Your task to perform on an android device: delete browsing data in the chrome app Image 0: 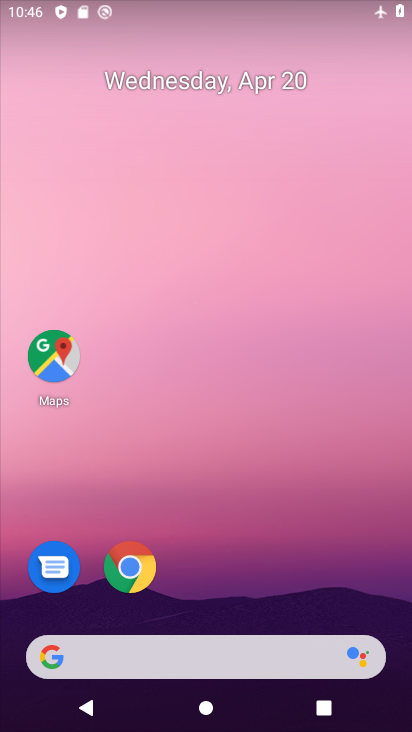
Step 0: click (275, 170)
Your task to perform on an android device: delete browsing data in the chrome app Image 1: 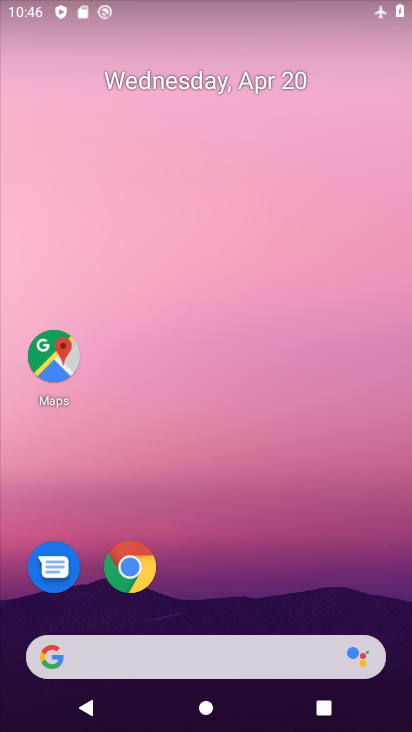
Step 1: drag from (209, 452) to (223, 116)
Your task to perform on an android device: delete browsing data in the chrome app Image 2: 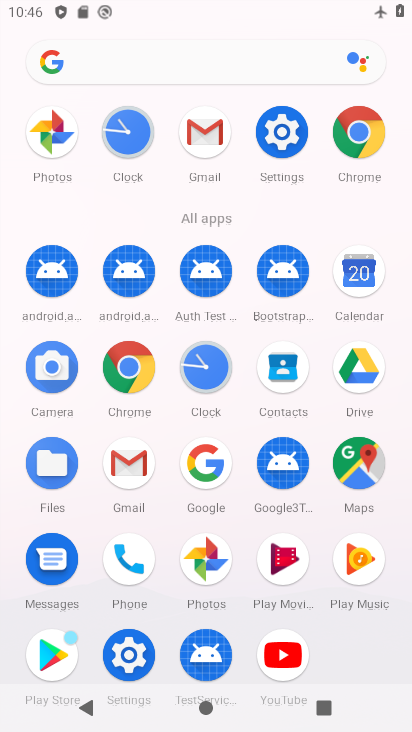
Step 2: click (349, 134)
Your task to perform on an android device: delete browsing data in the chrome app Image 3: 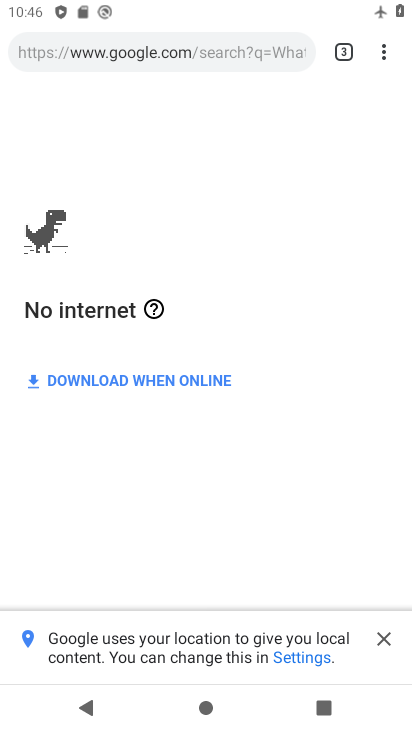
Step 3: click (391, 46)
Your task to perform on an android device: delete browsing data in the chrome app Image 4: 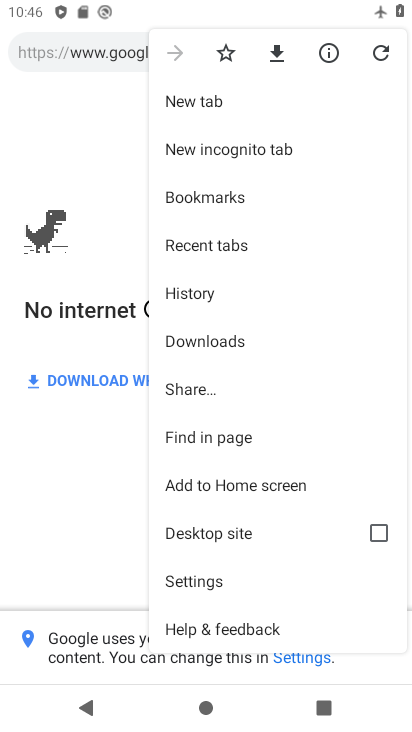
Step 4: click (212, 574)
Your task to perform on an android device: delete browsing data in the chrome app Image 5: 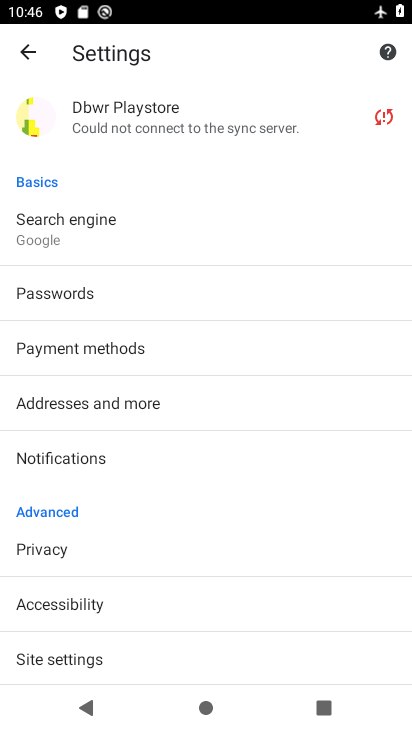
Step 5: drag from (154, 627) to (322, 146)
Your task to perform on an android device: delete browsing data in the chrome app Image 6: 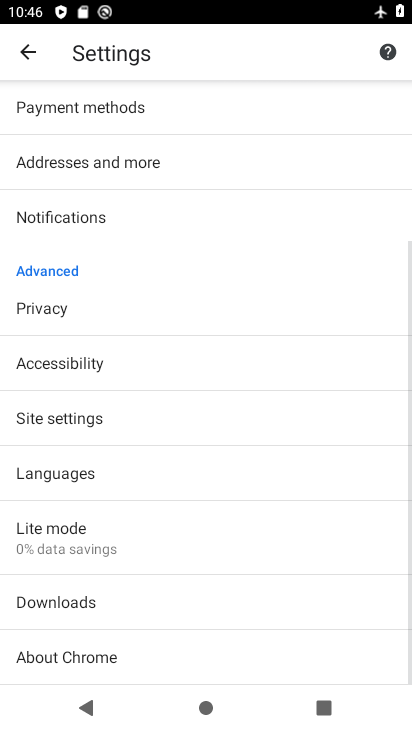
Step 6: drag from (139, 626) to (298, 137)
Your task to perform on an android device: delete browsing data in the chrome app Image 7: 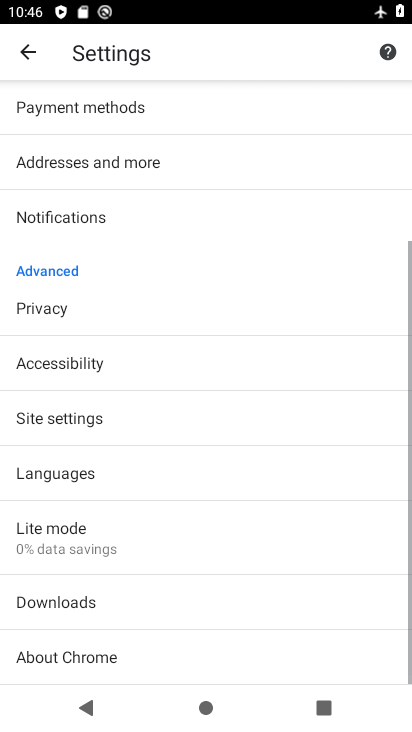
Step 7: drag from (266, 396) to (313, 89)
Your task to perform on an android device: delete browsing data in the chrome app Image 8: 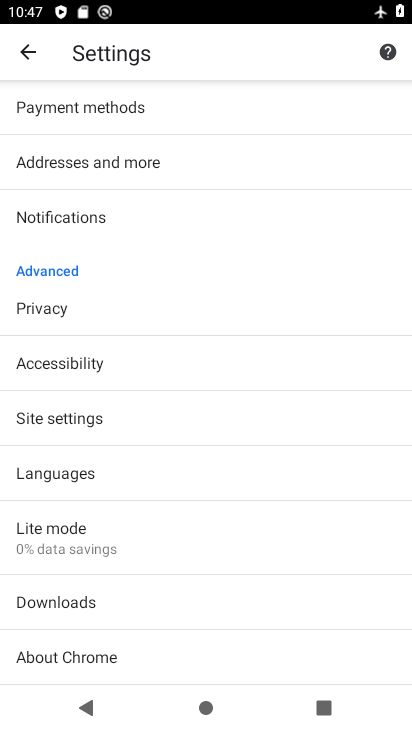
Step 8: click (89, 305)
Your task to perform on an android device: delete browsing data in the chrome app Image 9: 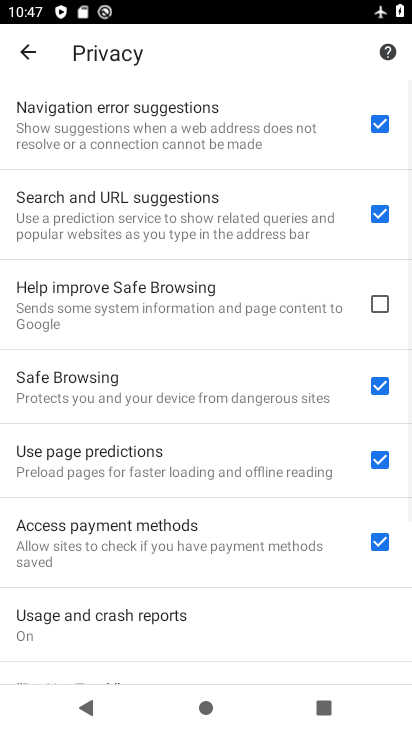
Step 9: drag from (180, 498) to (257, 94)
Your task to perform on an android device: delete browsing data in the chrome app Image 10: 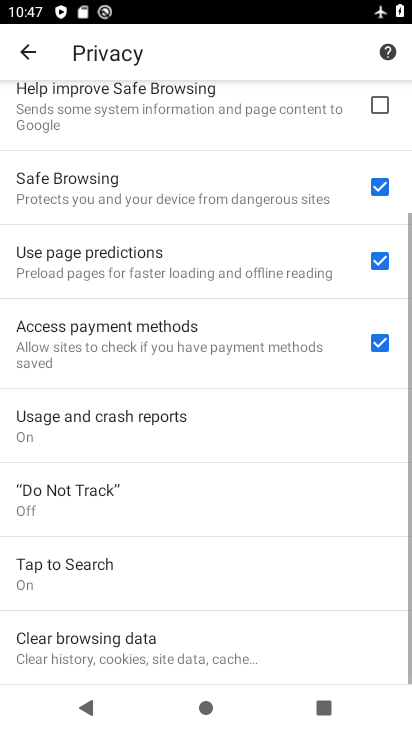
Step 10: drag from (161, 620) to (270, 228)
Your task to perform on an android device: delete browsing data in the chrome app Image 11: 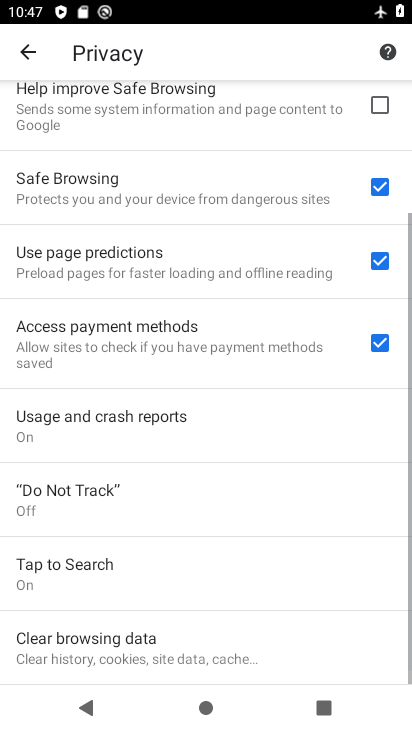
Step 11: click (130, 636)
Your task to perform on an android device: delete browsing data in the chrome app Image 12: 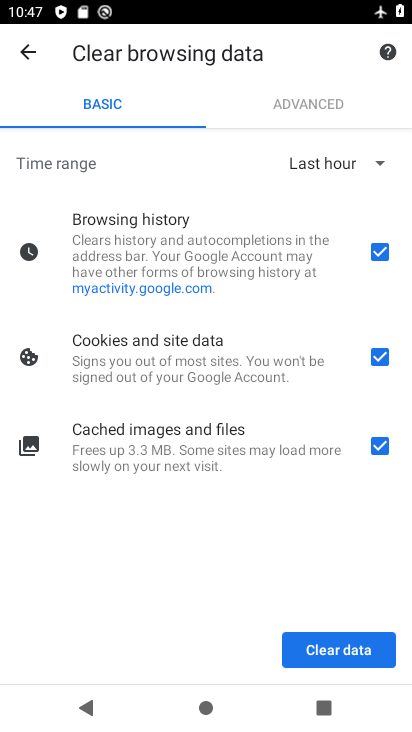
Step 12: click (333, 639)
Your task to perform on an android device: delete browsing data in the chrome app Image 13: 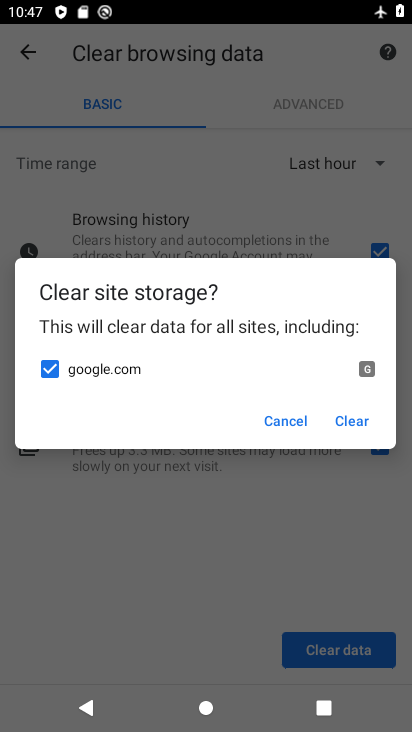
Step 13: click (335, 431)
Your task to perform on an android device: delete browsing data in the chrome app Image 14: 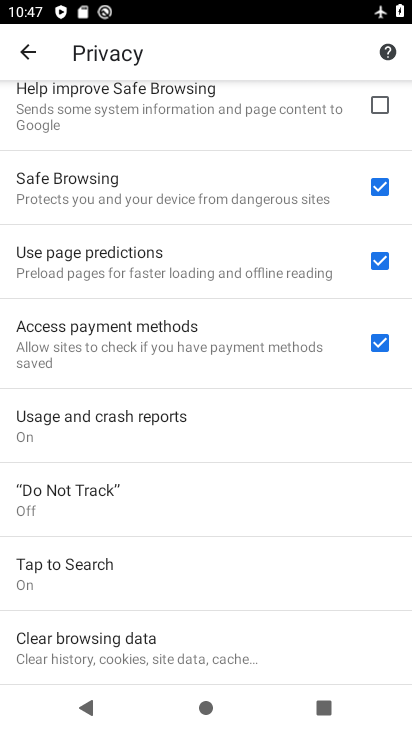
Step 14: task complete